Your task to perform on an android device: Open wifi settings Image 0: 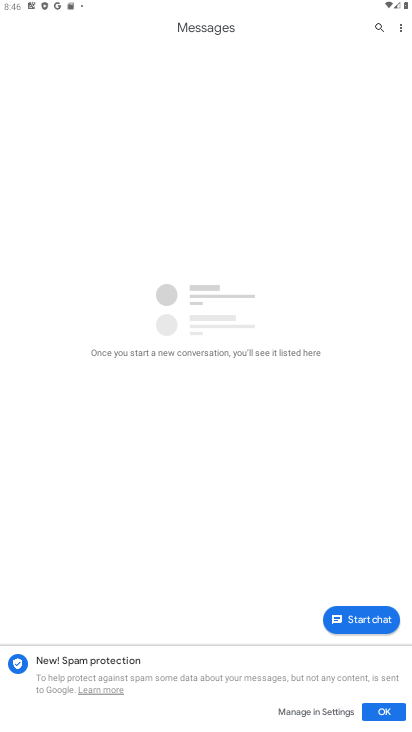
Step 0: press home button
Your task to perform on an android device: Open wifi settings Image 1: 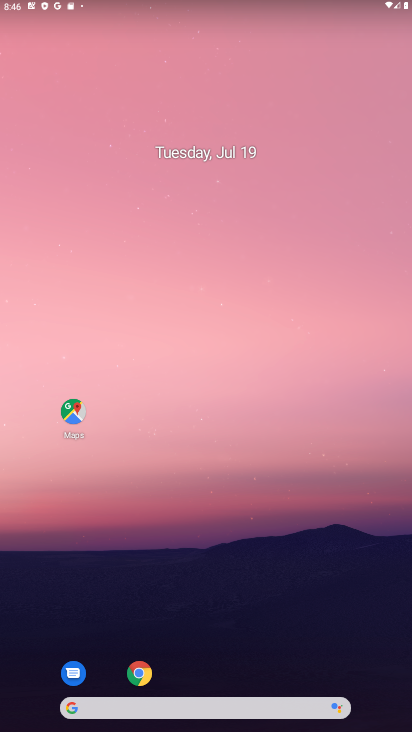
Step 1: drag from (216, 663) to (231, 99)
Your task to perform on an android device: Open wifi settings Image 2: 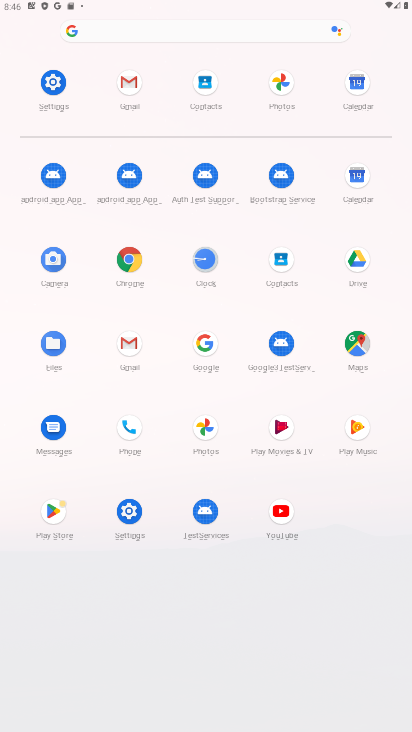
Step 2: click (59, 85)
Your task to perform on an android device: Open wifi settings Image 3: 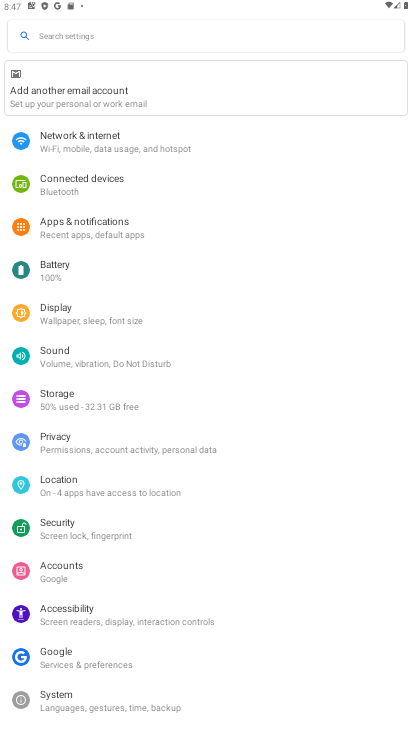
Step 3: click (145, 158)
Your task to perform on an android device: Open wifi settings Image 4: 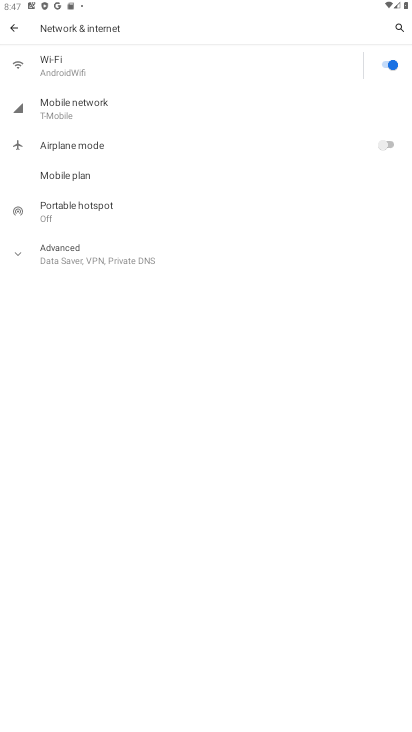
Step 4: click (171, 74)
Your task to perform on an android device: Open wifi settings Image 5: 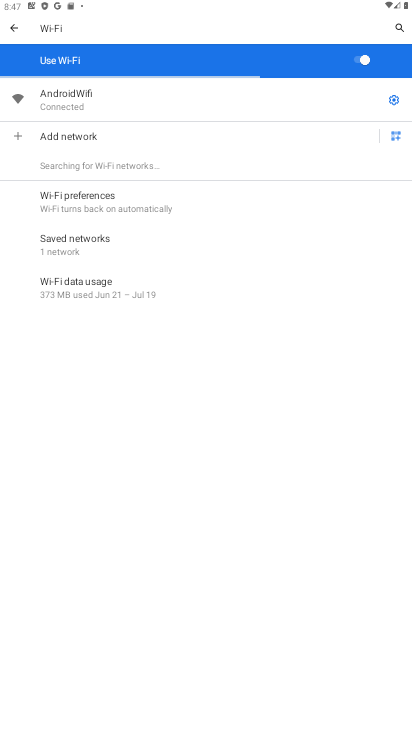
Step 5: task complete